Your task to perform on an android device: open wifi settings Image 0: 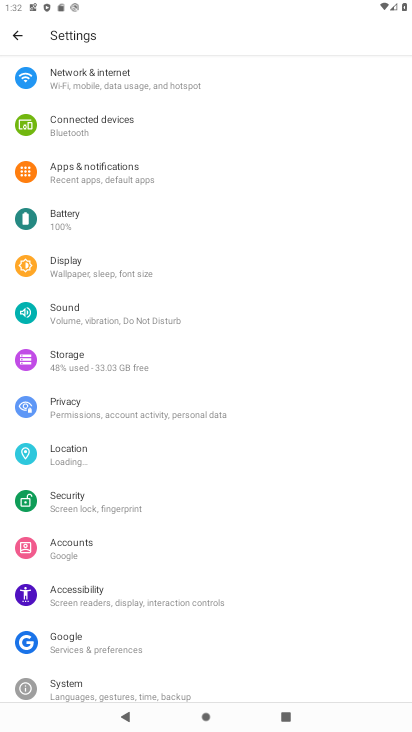
Step 0: click (59, 71)
Your task to perform on an android device: open wifi settings Image 1: 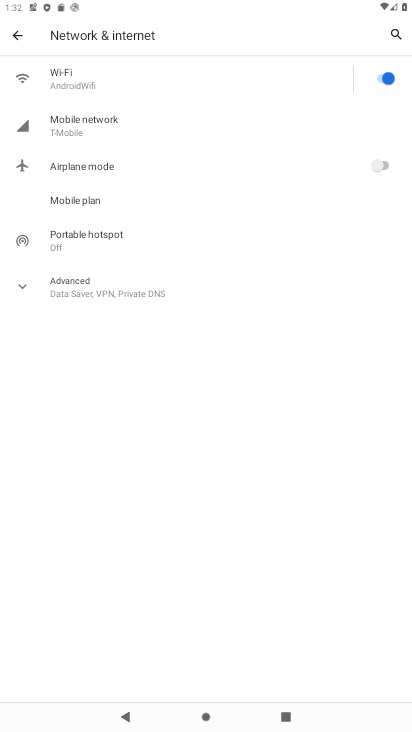
Step 1: click (66, 87)
Your task to perform on an android device: open wifi settings Image 2: 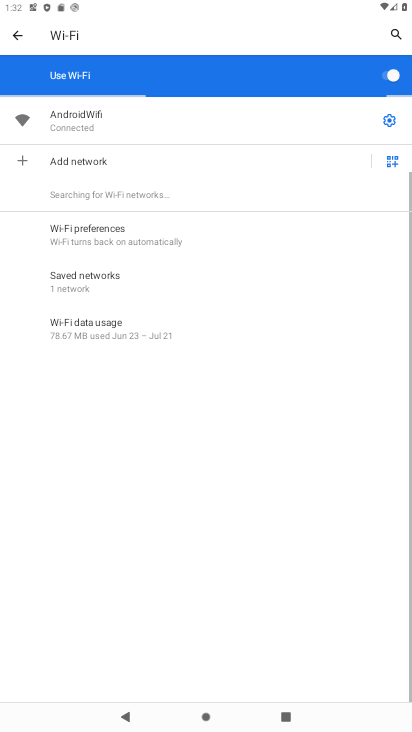
Step 2: click (388, 117)
Your task to perform on an android device: open wifi settings Image 3: 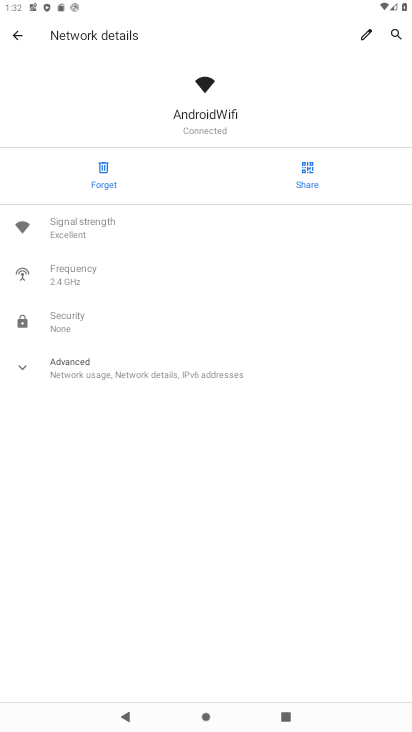
Step 3: task complete